Your task to perform on an android device: install app "Etsy: Buy & Sell Unique Items" Image 0: 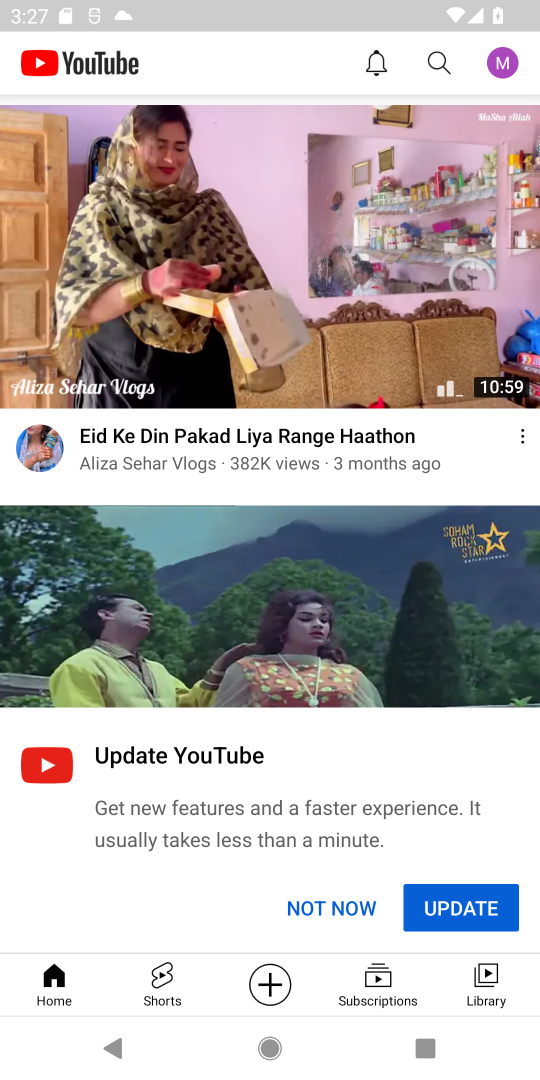
Step 0: press home button
Your task to perform on an android device: install app "Etsy: Buy & Sell Unique Items" Image 1: 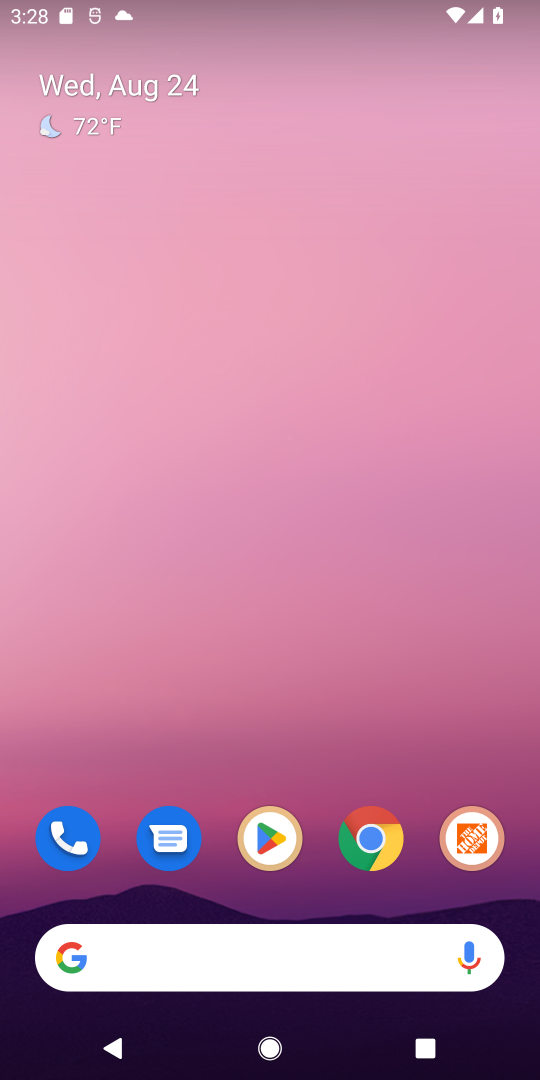
Step 1: click (292, 846)
Your task to perform on an android device: install app "Etsy: Buy & Sell Unique Items" Image 2: 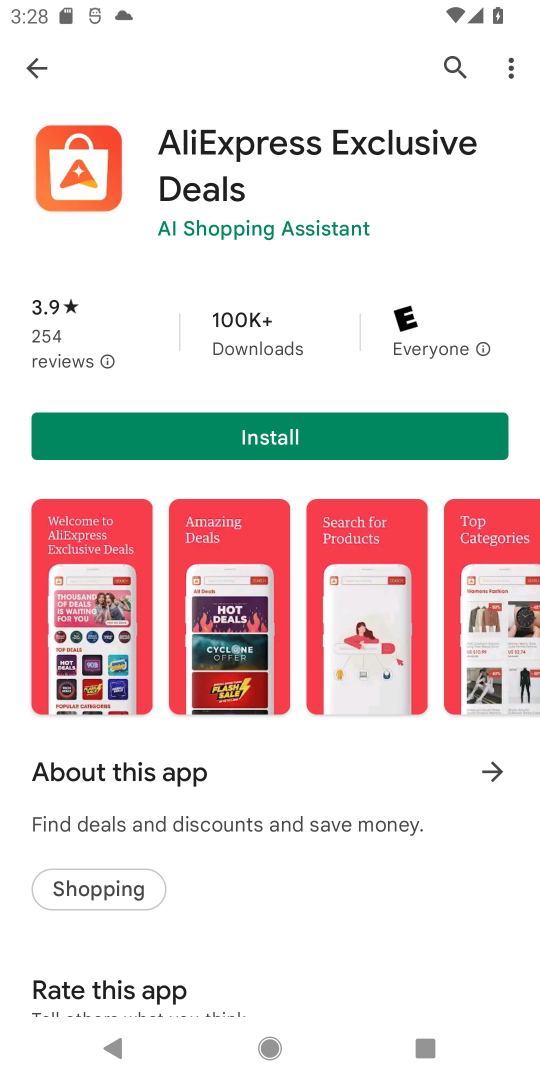
Step 2: click (23, 51)
Your task to perform on an android device: install app "Etsy: Buy & Sell Unique Items" Image 3: 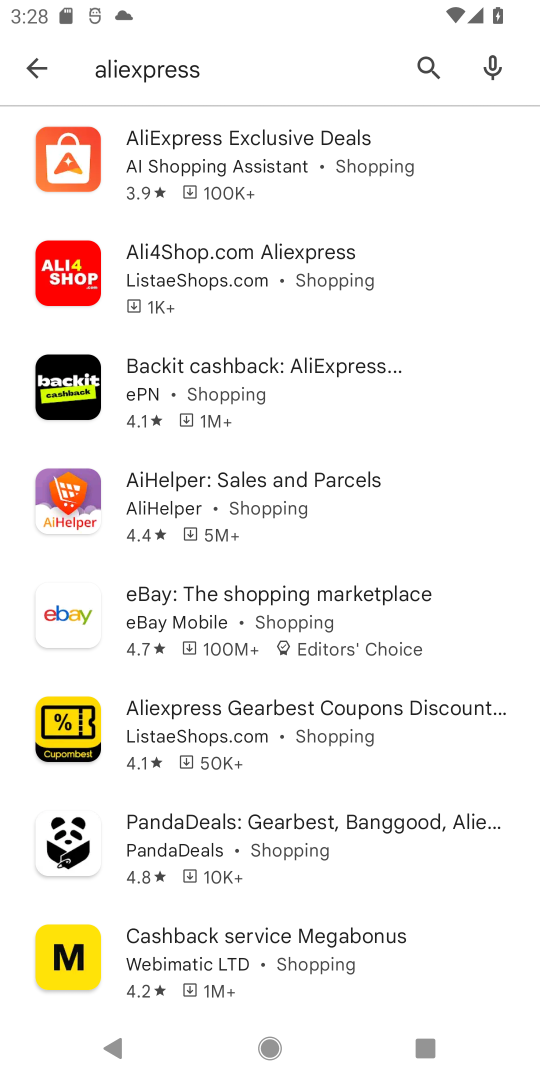
Step 3: click (33, 79)
Your task to perform on an android device: install app "Etsy: Buy & Sell Unique Items" Image 4: 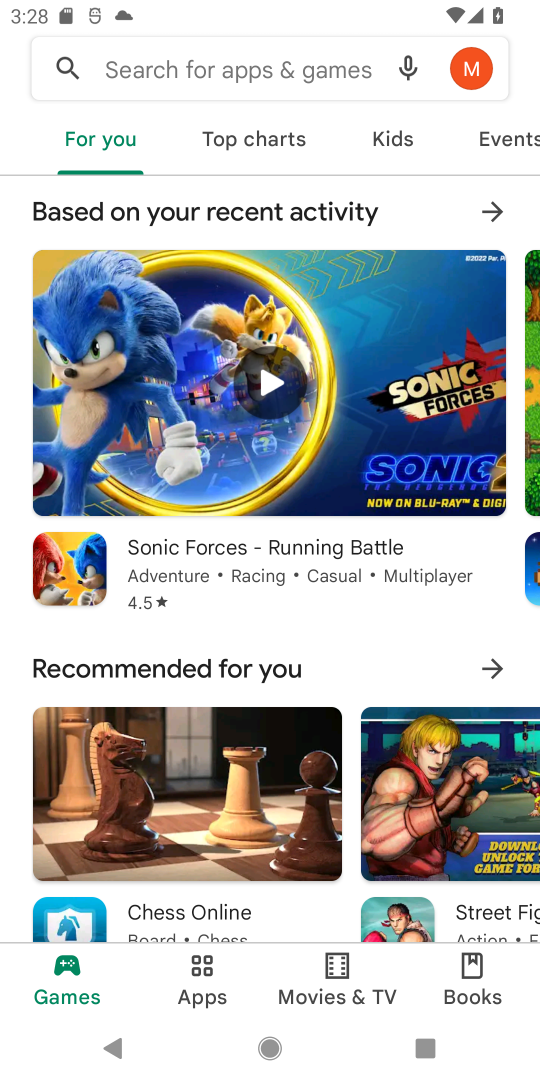
Step 4: click (184, 90)
Your task to perform on an android device: install app "Etsy: Buy & Sell Unique Items" Image 5: 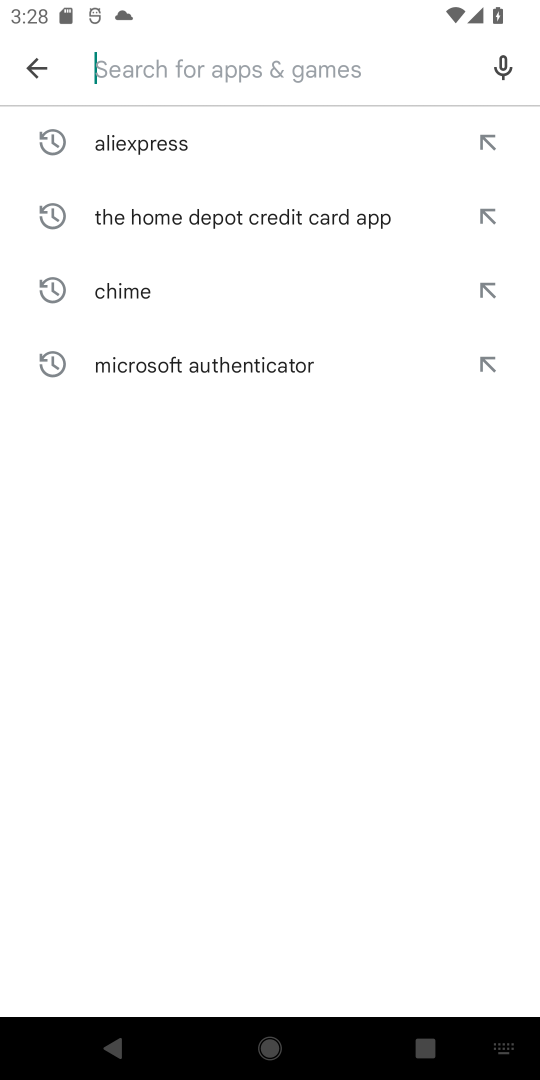
Step 5: type "Etsy"
Your task to perform on an android device: install app "Etsy: Buy & Sell Unique Items" Image 6: 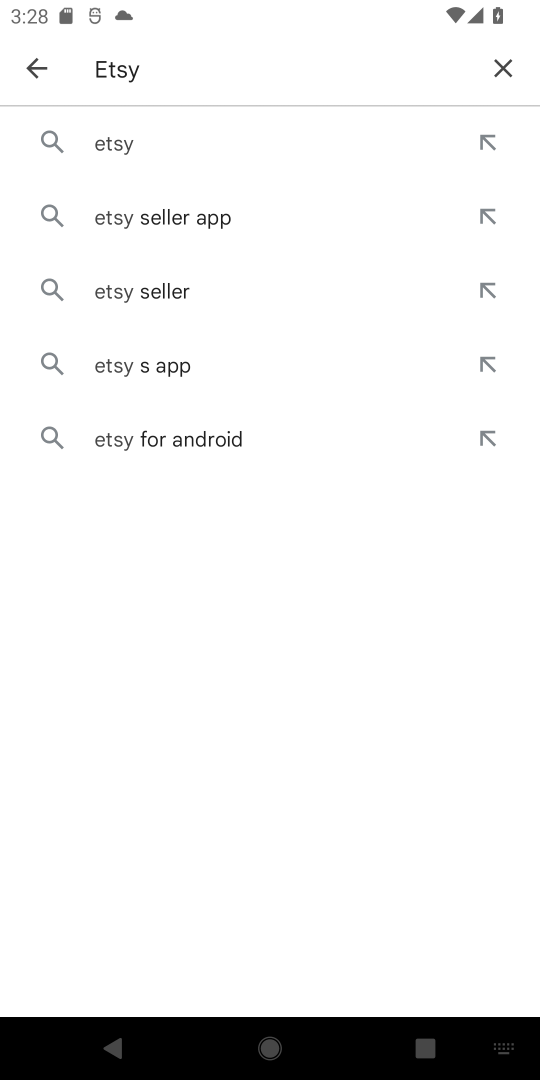
Step 6: click (123, 147)
Your task to perform on an android device: install app "Etsy: Buy & Sell Unique Items" Image 7: 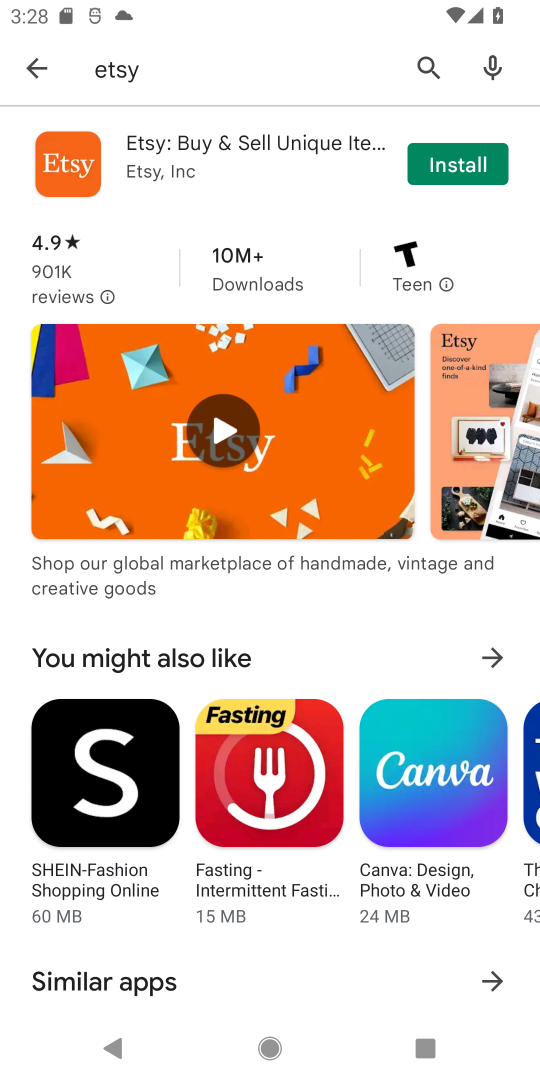
Step 7: click (482, 156)
Your task to perform on an android device: install app "Etsy: Buy & Sell Unique Items" Image 8: 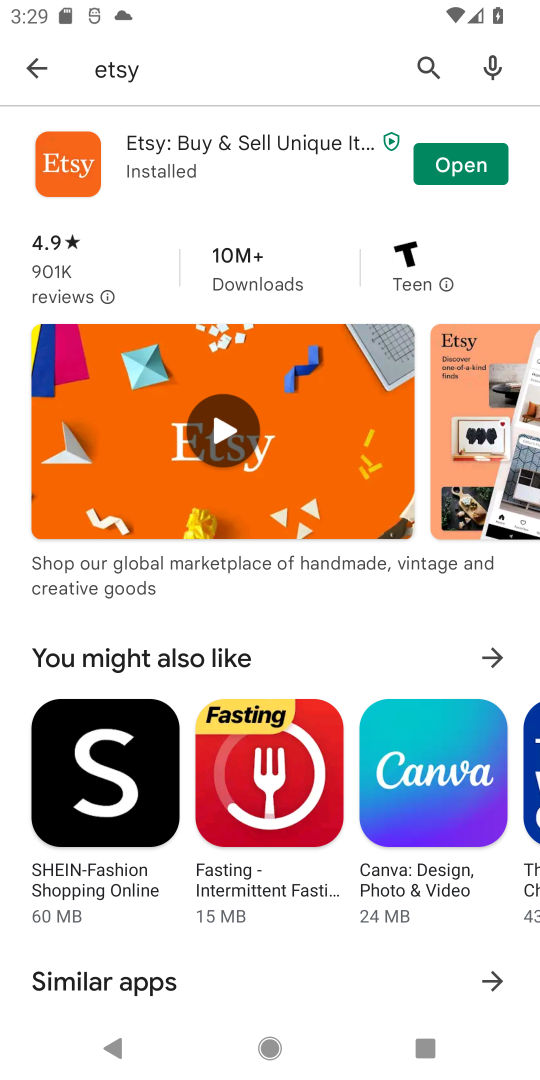
Step 8: click (454, 170)
Your task to perform on an android device: install app "Etsy: Buy & Sell Unique Items" Image 9: 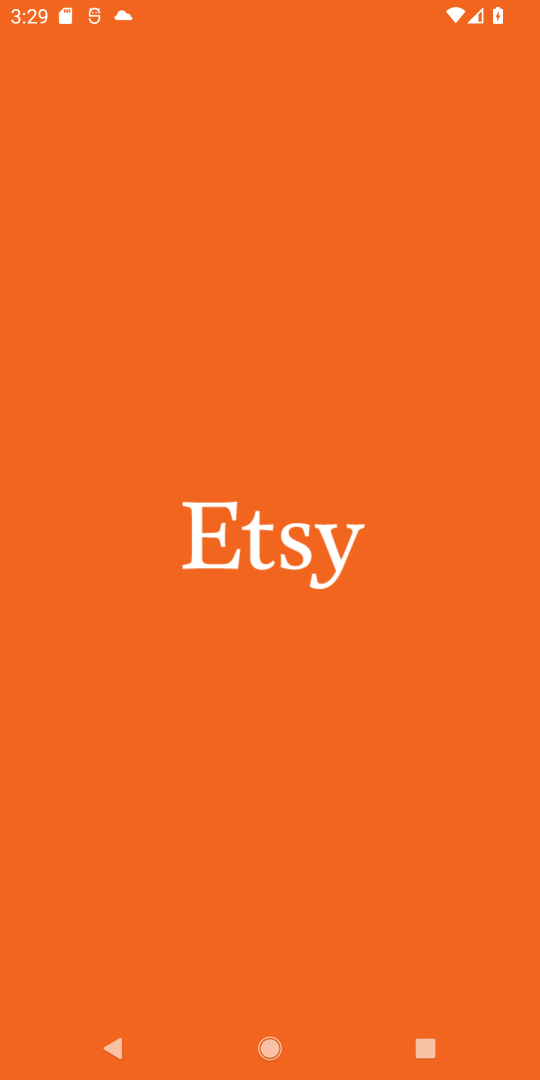
Step 9: task complete